Your task to perform on an android device: Open ESPN.com Image 0: 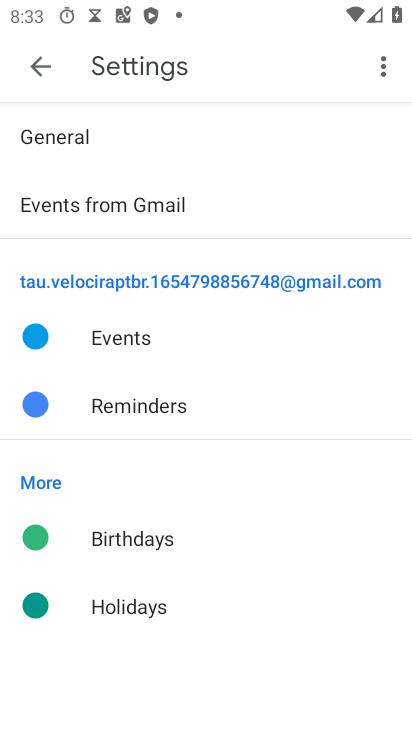
Step 0: press home button
Your task to perform on an android device: Open ESPN.com Image 1: 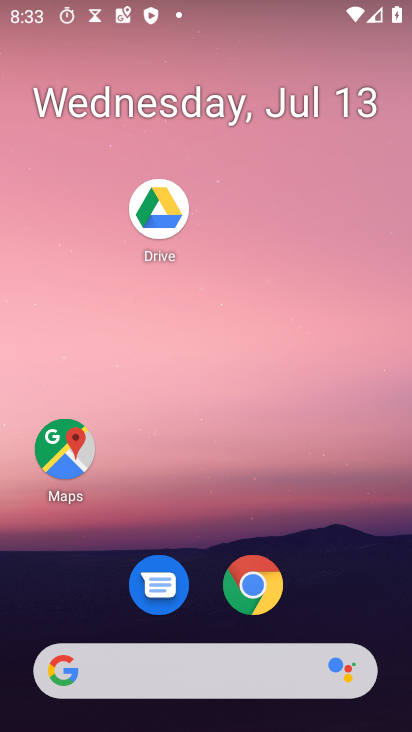
Step 1: click (255, 587)
Your task to perform on an android device: Open ESPN.com Image 2: 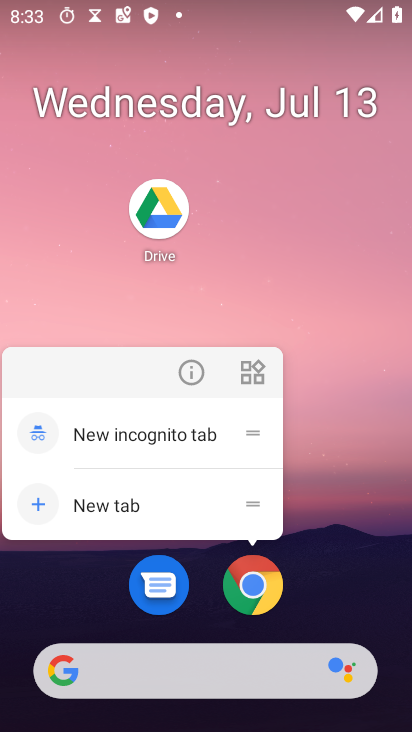
Step 2: click (255, 587)
Your task to perform on an android device: Open ESPN.com Image 3: 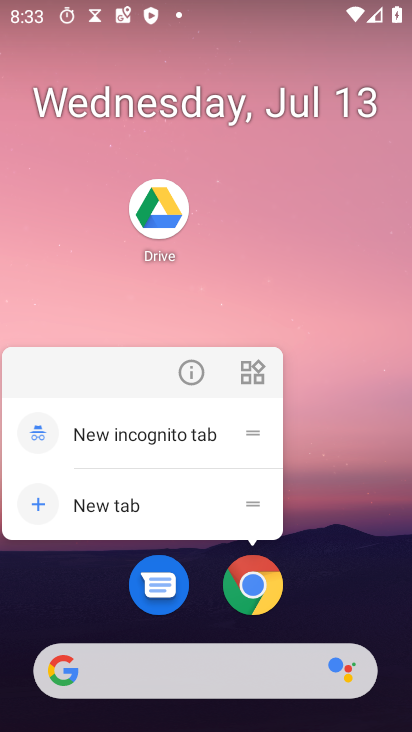
Step 3: click (255, 591)
Your task to perform on an android device: Open ESPN.com Image 4: 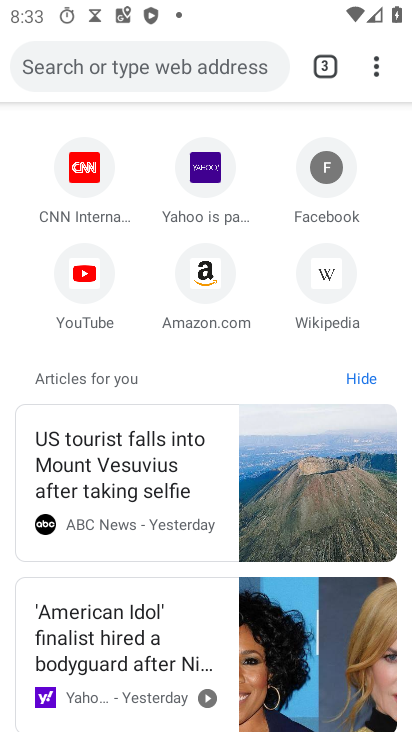
Step 4: click (169, 56)
Your task to perform on an android device: Open ESPN.com Image 5: 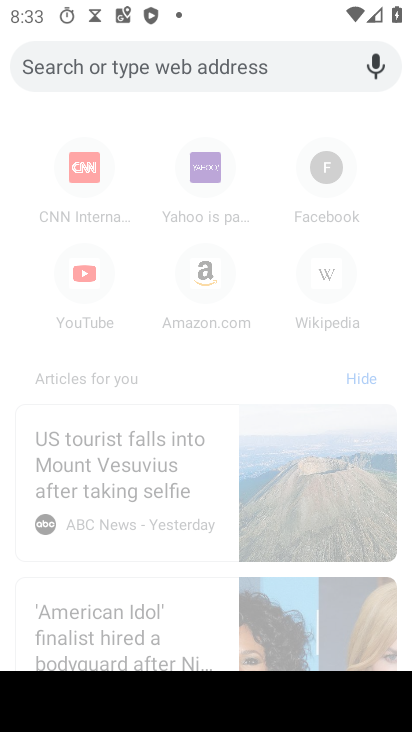
Step 5: type "espn.com"
Your task to perform on an android device: Open ESPN.com Image 6: 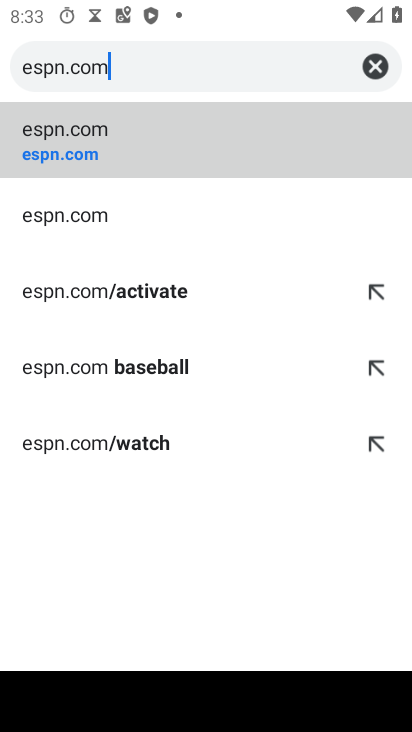
Step 6: click (129, 145)
Your task to perform on an android device: Open ESPN.com Image 7: 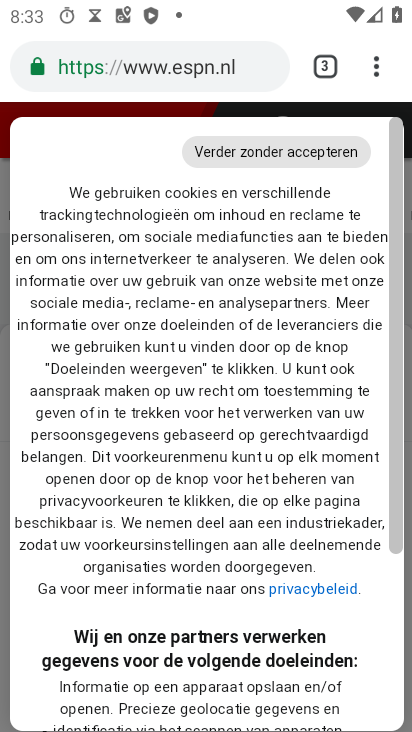
Step 7: drag from (200, 526) to (290, 147)
Your task to perform on an android device: Open ESPN.com Image 8: 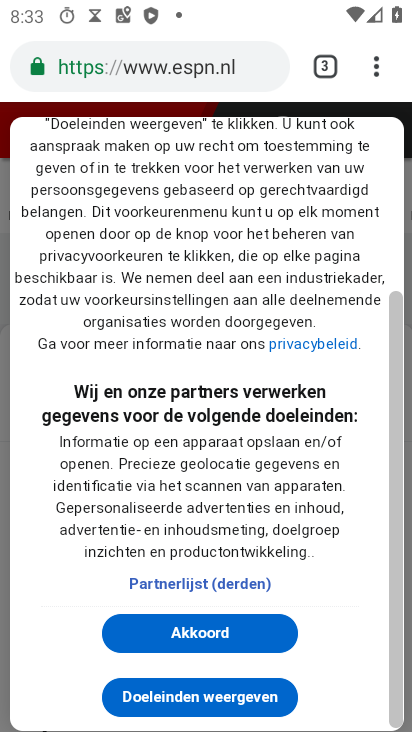
Step 8: click (192, 638)
Your task to perform on an android device: Open ESPN.com Image 9: 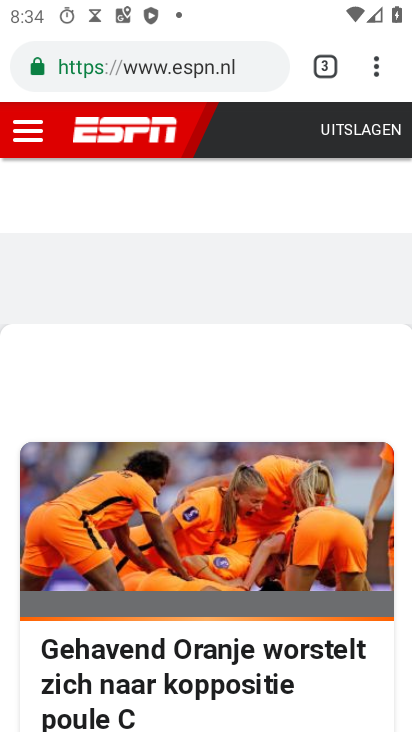
Step 9: task complete